Your task to perform on an android device: Open the calendar app, open the side menu, and click the "Day" option Image 0: 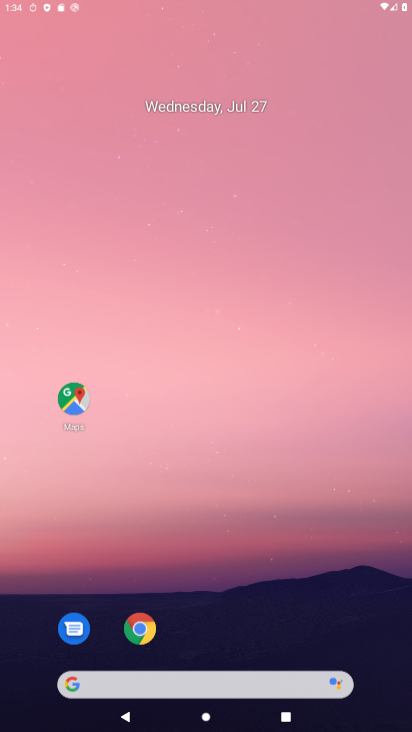
Step 0: press home button
Your task to perform on an android device: Open the calendar app, open the side menu, and click the "Day" option Image 1: 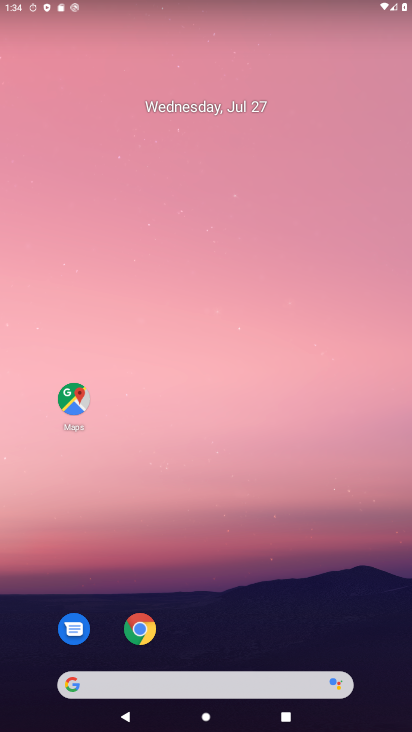
Step 1: drag from (242, 646) to (310, 85)
Your task to perform on an android device: Open the calendar app, open the side menu, and click the "Day" option Image 2: 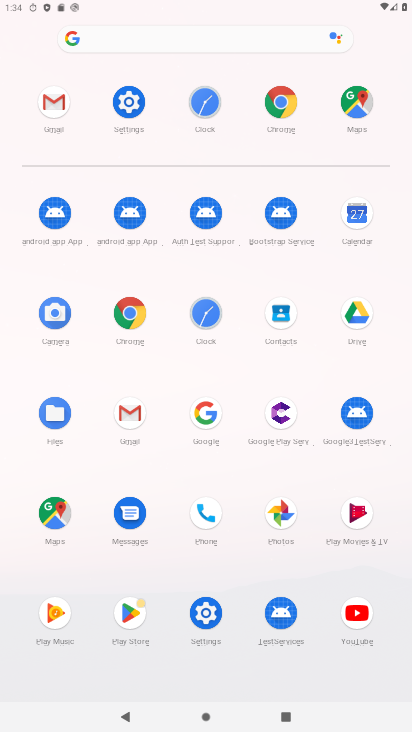
Step 2: click (365, 213)
Your task to perform on an android device: Open the calendar app, open the side menu, and click the "Day" option Image 3: 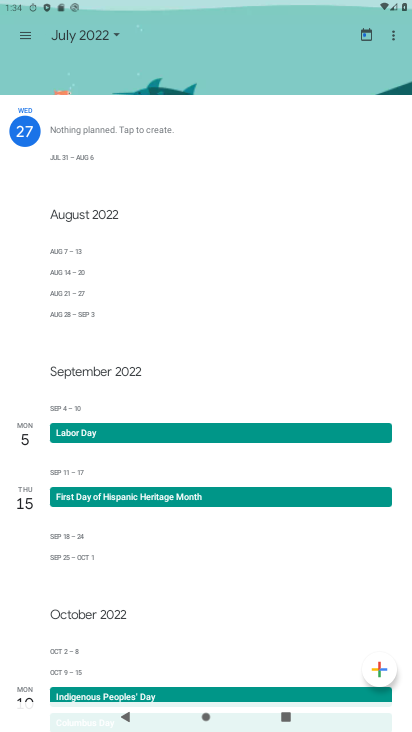
Step 3: click (36, 34)
Your task to perform on an android device: Open the calendar app, open the side menu, and click the "Day" option Image 4: 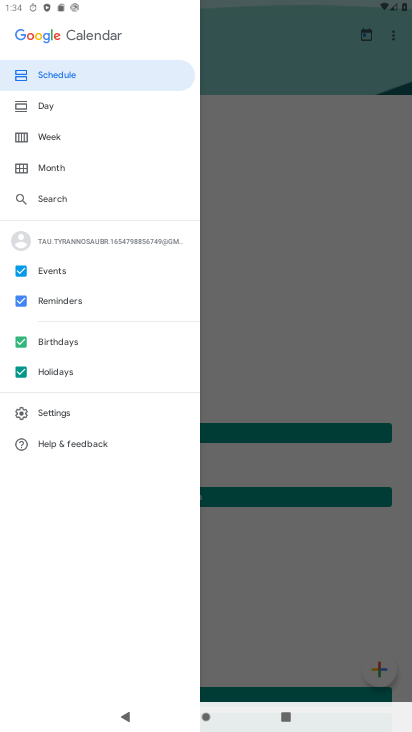
Step 4: click (44, 107)
Your task to perform on an android device: Open the calendar app, open the side menu, and click the "Day" option Image 5: 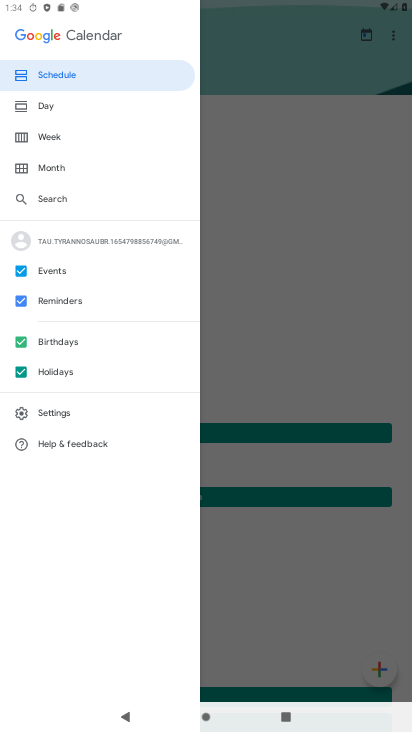
Step 5: click (44, 107)
Your task to perform on an android device: Open the calendar app, open the side menu, and click the "Day" option Image 6: 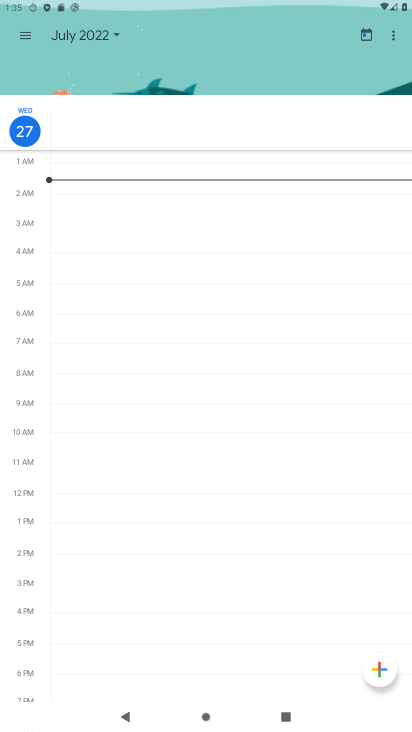
Step 6: task complete